Your task to perform on an android device: delete a single message in the gmail app Image 0: 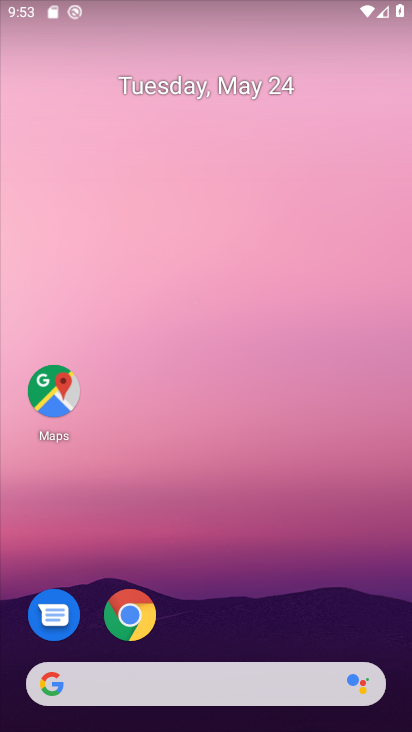
Step 0: drag from (375, 623) to (374, 245)
Your task to perform on an android device: delete a single message in the gmail app Image 1: 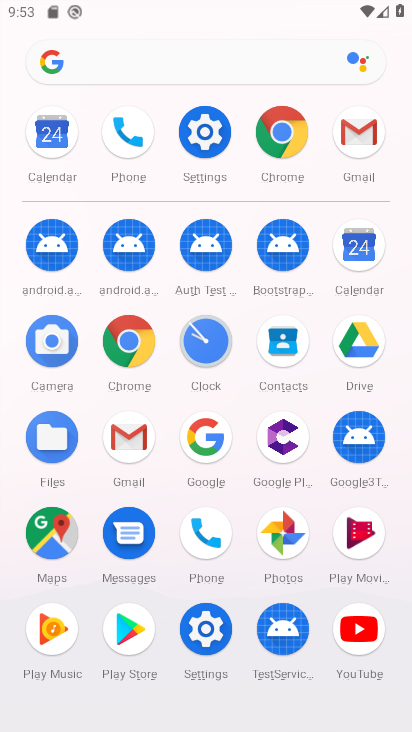
Step 1: click (132, 444)
Your task to perform on an android device: delete a single message in the gmail app Image 2: 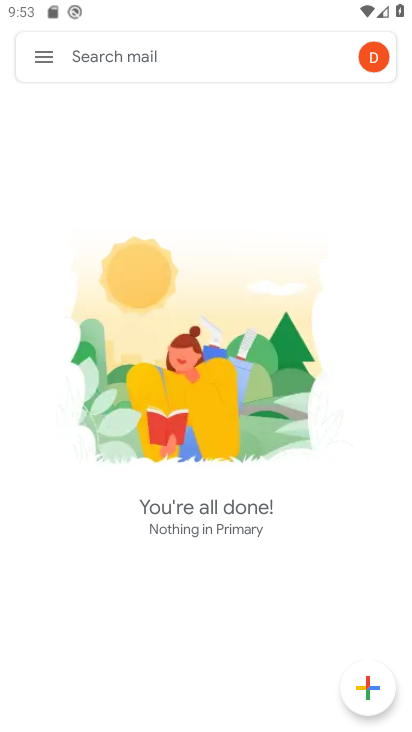
Step 2: task complete